Your task to perform on an android device: Go to Reddit.com Image 0: 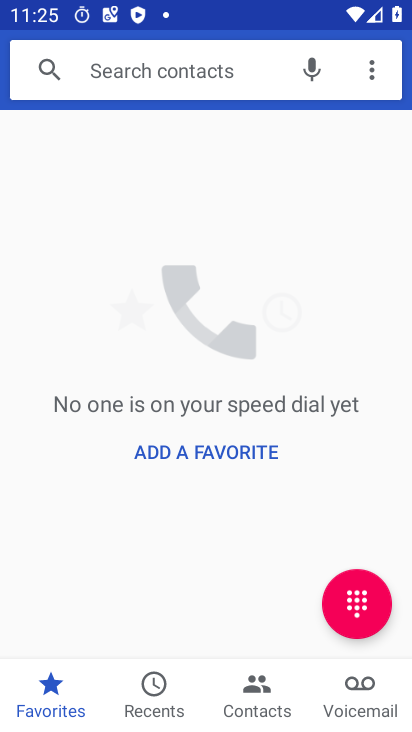
Step 0: press back button
Your task to perform on an android device: Go to Reddit.com Image 1: 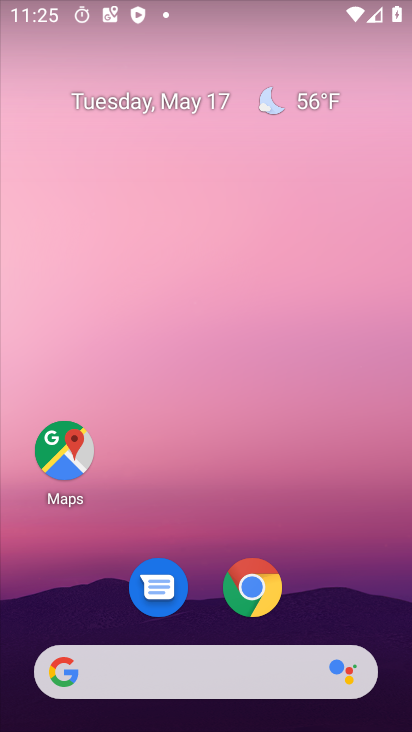
Step 1: click (251, 586)
Your task to perform on an android device: Go to Reddit.com Image 2: 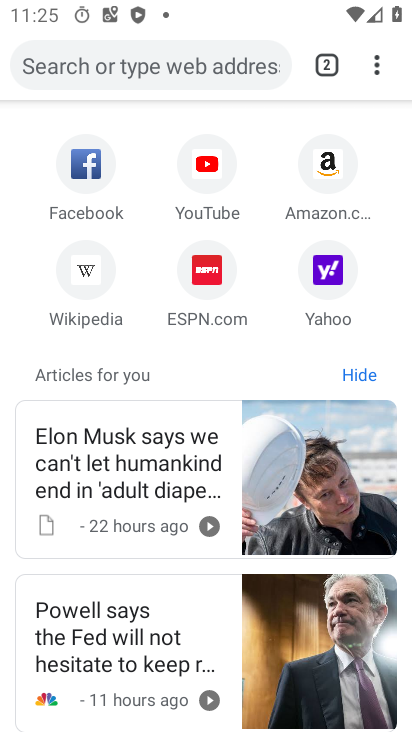
Step 2: click (205, 69)
Your task to perform on an android device: Go to Reddit.com Image 3: 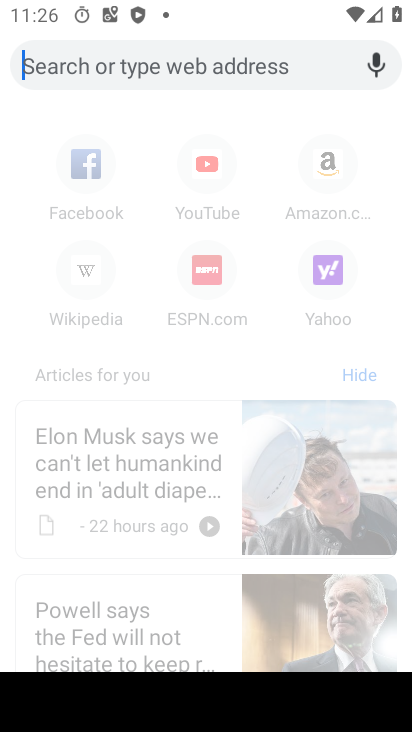
Step 3: type "Reddit.com"
Your task to perform on an android device: Go to Reddit.com Image 4: 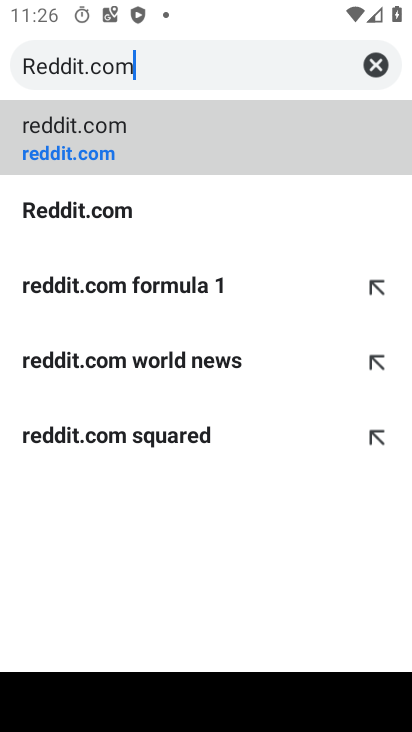
Step 4: click (105, 209)
Your task to perform on an android device: Go to Reddit.com Image 5: 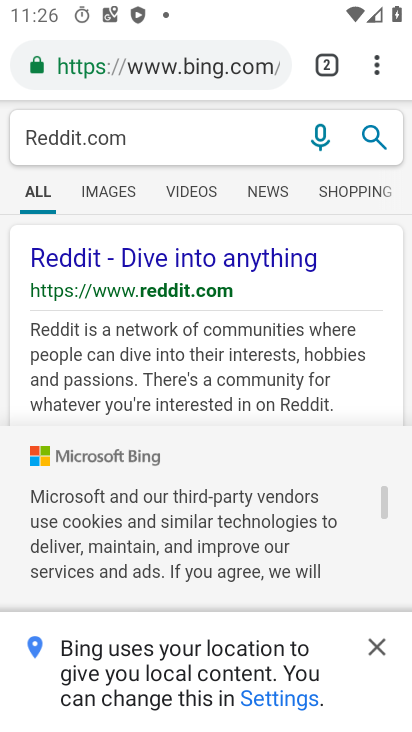
Step 5: click (106, 263)
Your task to perform on an android device: Go to Reddit.com Image 6: 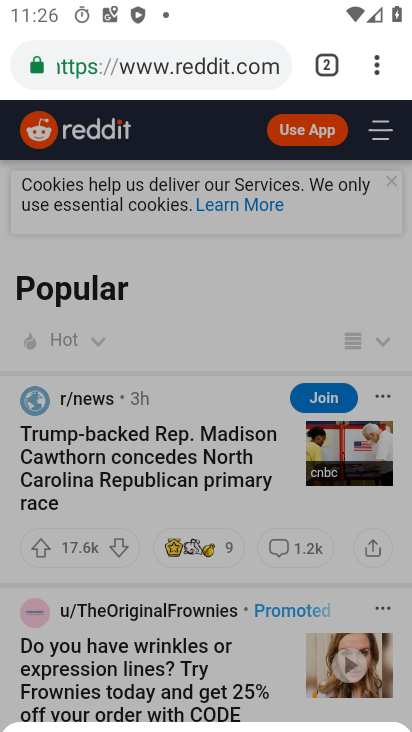
Step 6: task complete